Your task to perform on an android device: Toggle the flashlight Image 0: 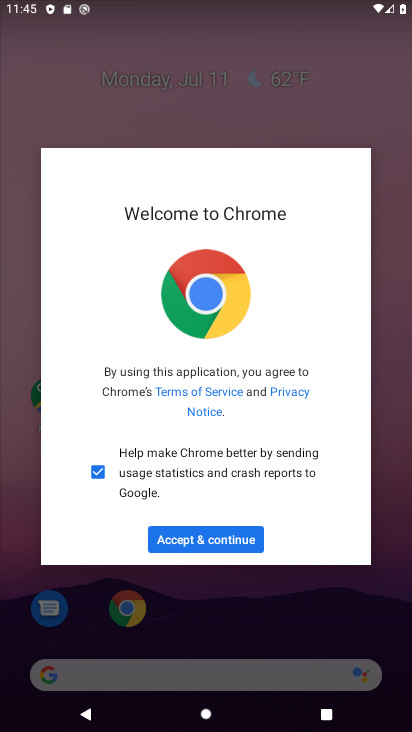
Step 0: press home button
Your task to perform on an android device: Toggle the flashlight Image 1: 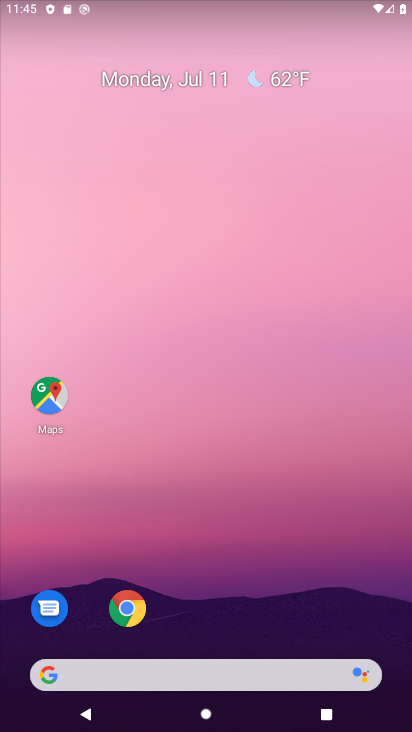
Step 1: drag from (282, 91) to (286, 7)
Your task to perform on an android device: Toggle the flashlight Image 2: 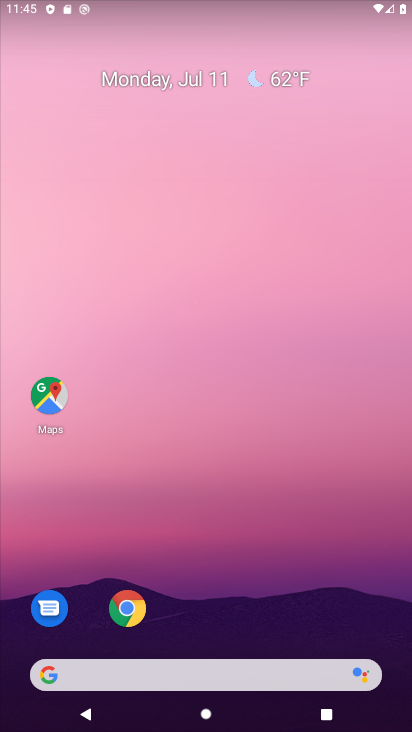
Step 2: drag from (284, 544) to (380, 0)
Your task to perform on an android device: Toggle the flashlight Image 3: 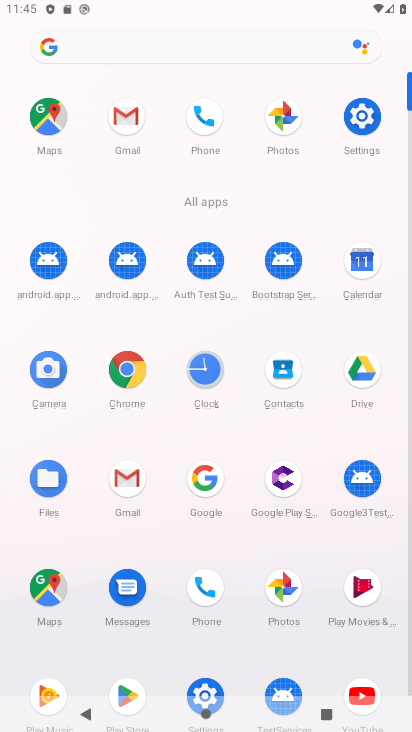
Step 3: click (360, 127)
Your task to perform on an android device: Toggle the flashlight Image 4: 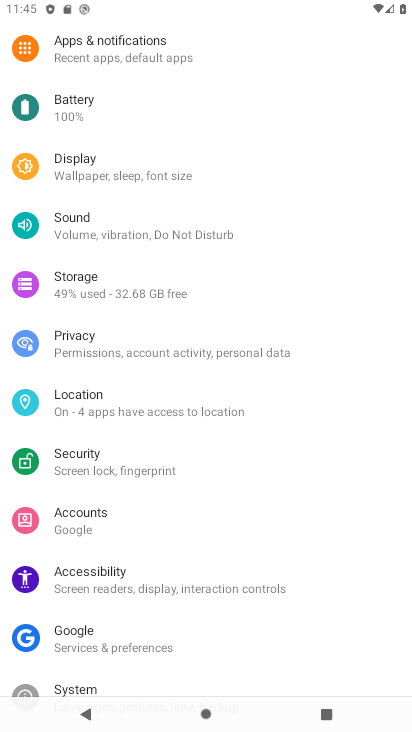
Step 4: task complete